Your task to perform on an android device: Open eBay Image 0: 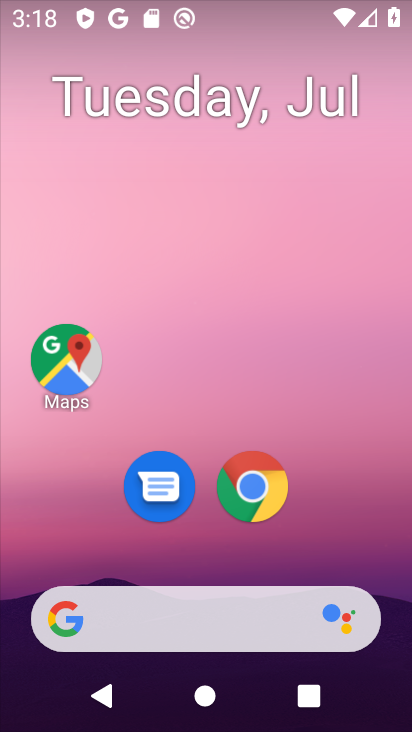
Step 0: click (253, 9)
Your task to perform on an android device: Open eBay Image 1: 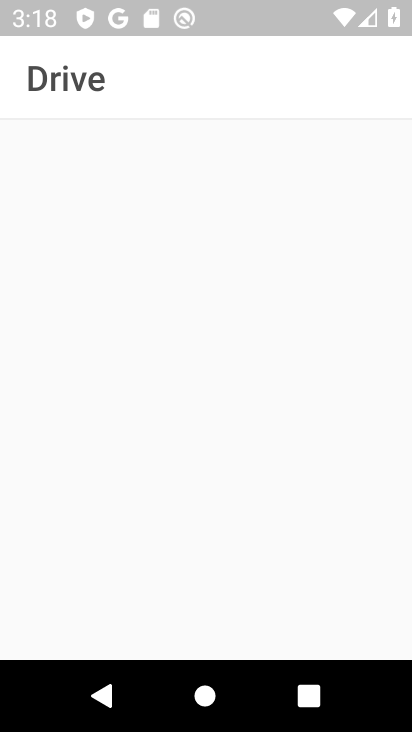
Step 1: press back button
Your task to perform on an android device: Open eBay Image 2: 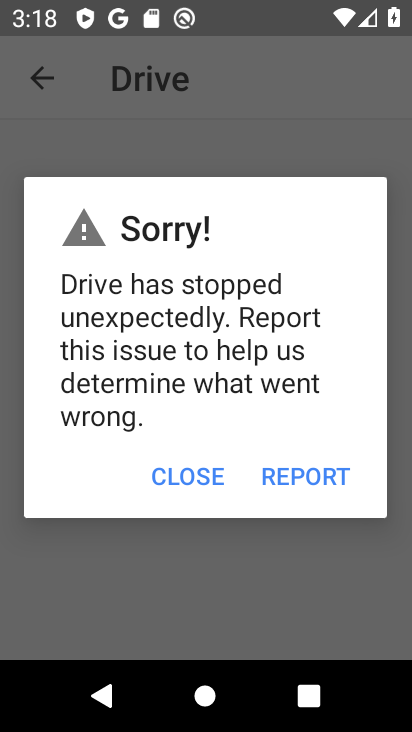
Step 2: press back button
Your task to perform on an android device: Open eBay Image 3: 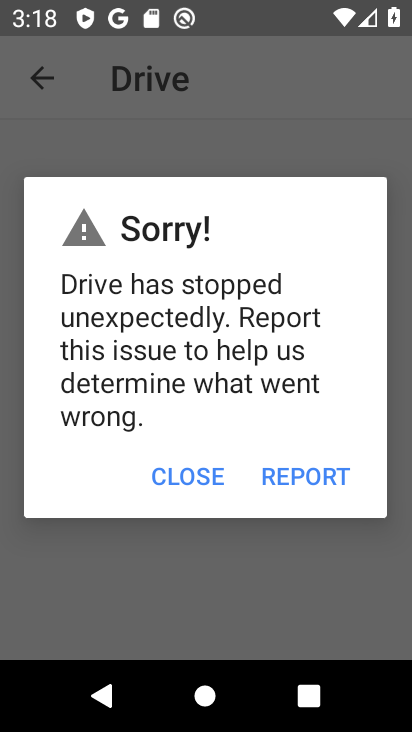
Step 3: press home button
Your task to perform on an android device: Open eBay Image 4: 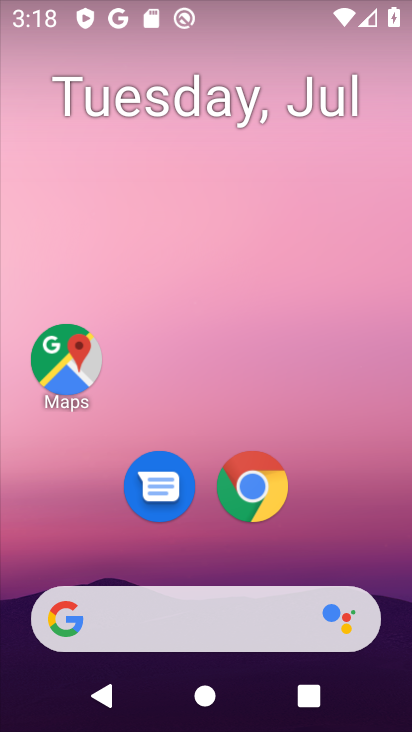
Step 4: click (249, 484)
Your task to perform on an android device: Open eBay Image 5: 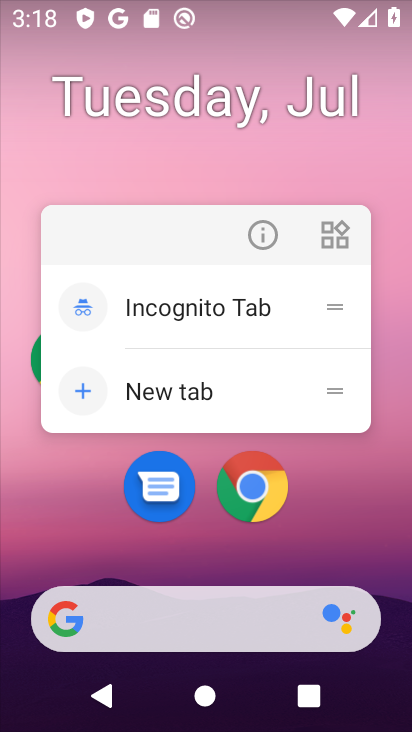
Step 5: click (246, 488)
Your task to perform on an android device: Open eBay Image 6: 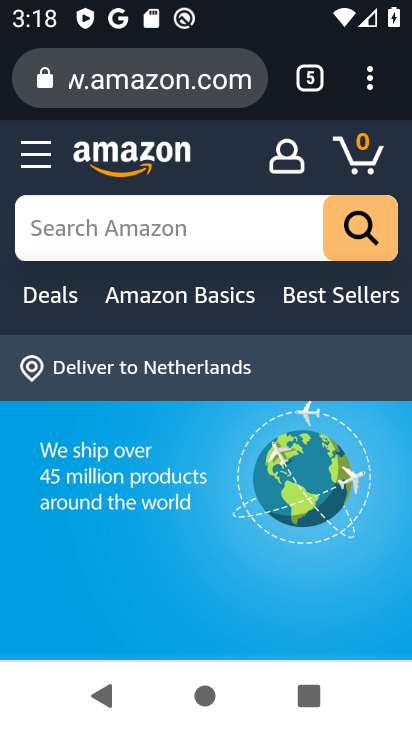
Step 6: click (309, 79)
Your task to perform on an android device: Open eBay Image 7: 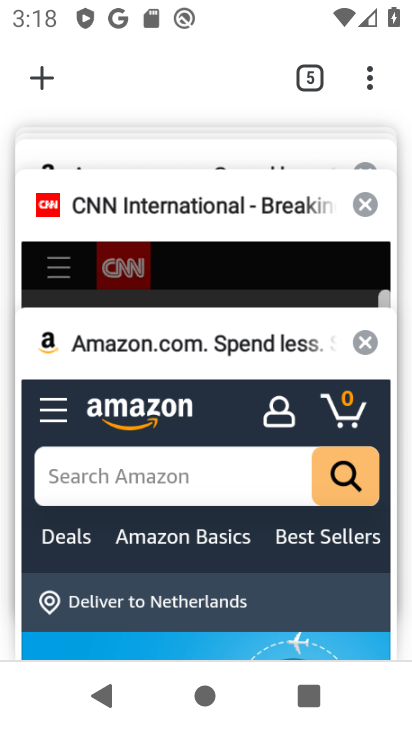
Step 7: drag from (179, 220) to (179, 432)
Your task to perform on an android device: Open eBay Image 8: 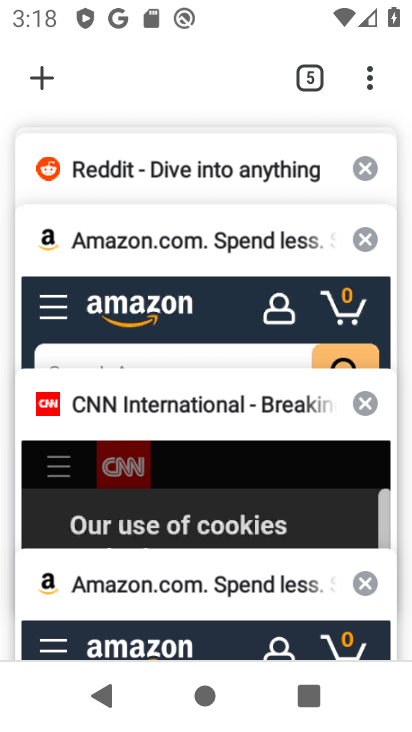
Step 8: drag from (185, 177) to (185, 465)
Your task to perform on an android device: Open eBay Image 9: 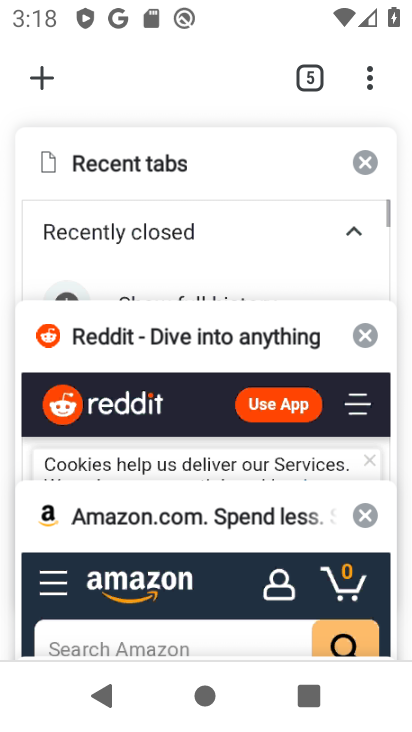
Step 9: click (31, 65)
Your task to perform on an android device: Open eBay Image 10: 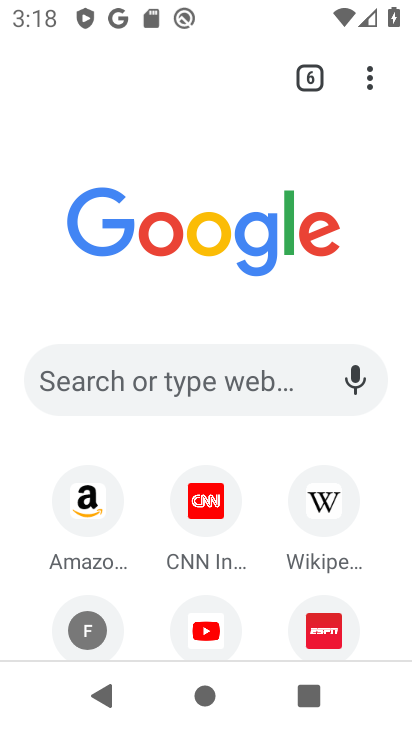
Step 10: click (190, 376)
Your task to perform on an android device: Open eBay Image 11: 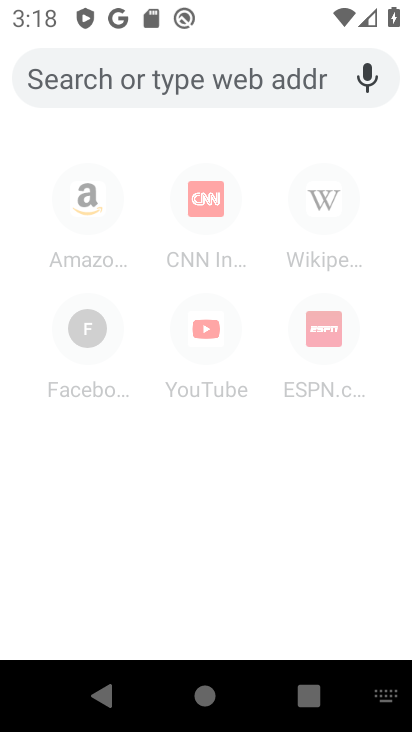
Step 11: type "ebay"
Your task to perform on an android device: Open eBay Image 12: 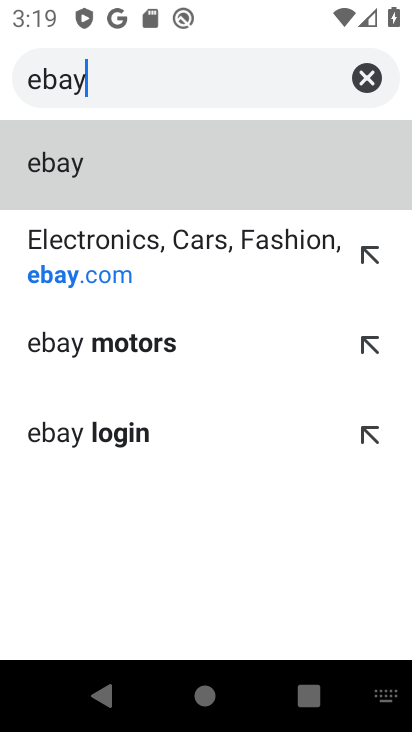
Step 12: click (105, 268)
Your task to perform on an android device: Open eBay Image 13: 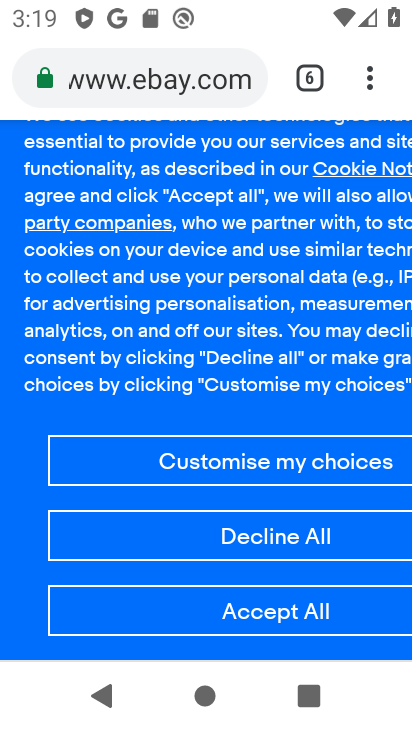
Step 13: task complete